Your task to perform on an android device: install app "Google News" Image 0: 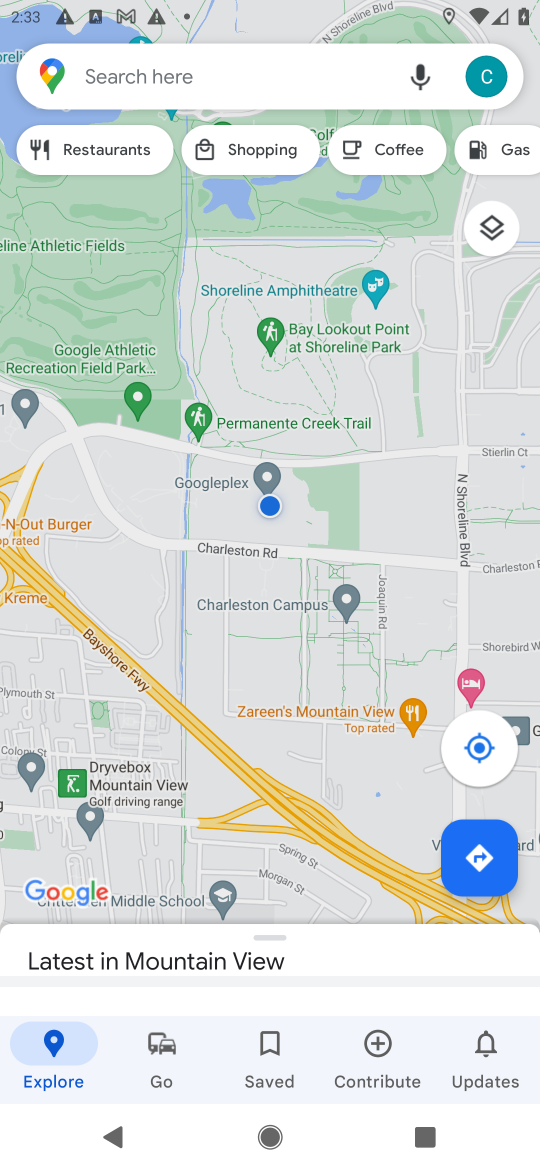
Step 0: press home button
Your task to perform on an android device: install app "Google News" Image 1: 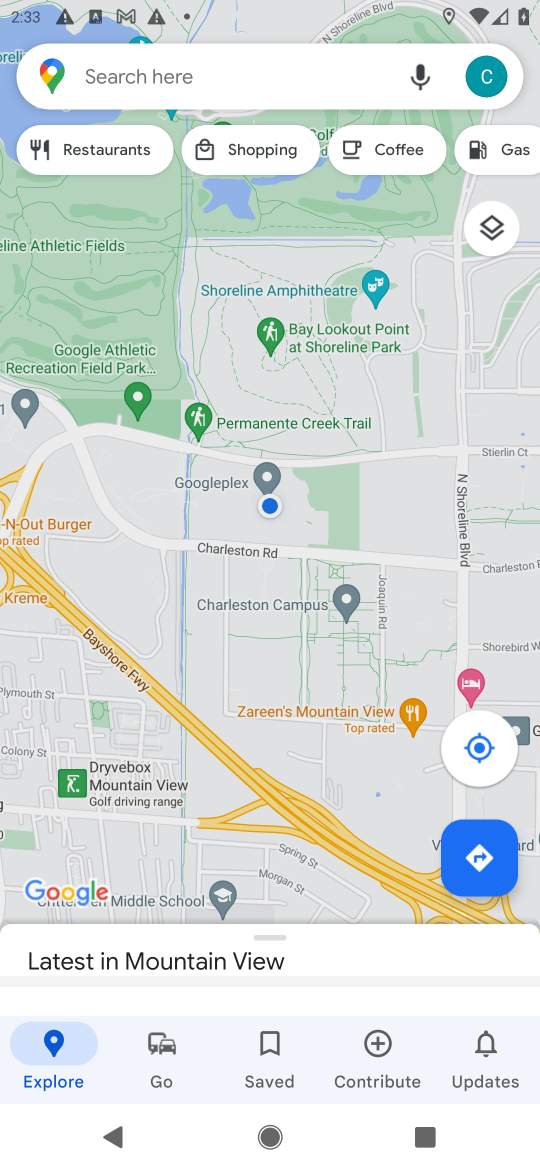
Step 1: press home button
Your task to perform on an android device: install app "Google News" Image 2: 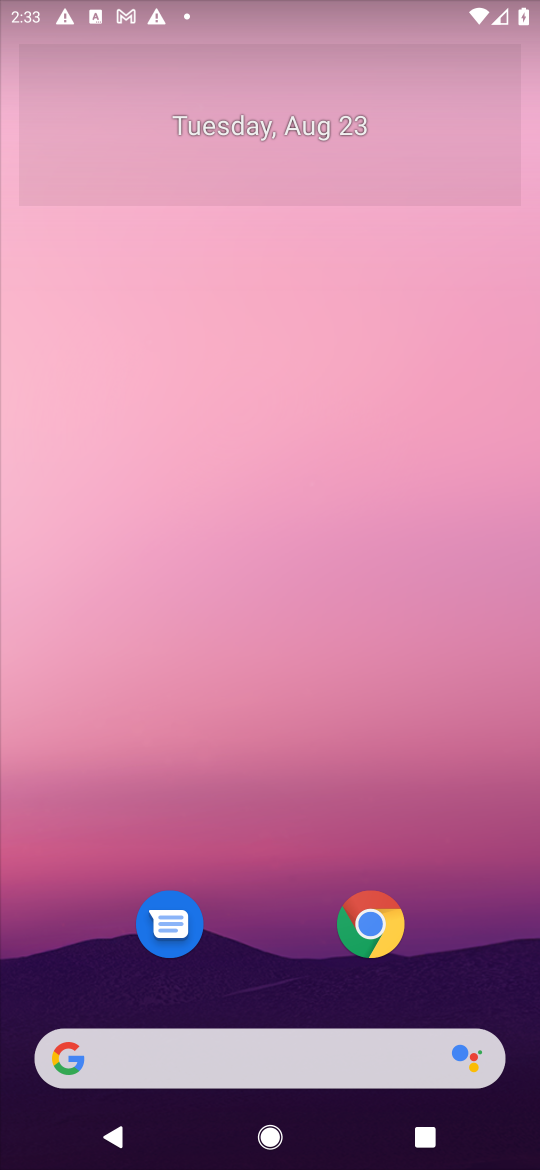
Step 2: press home button
Your task to perform on an android device: install app "Google News" Image 3: 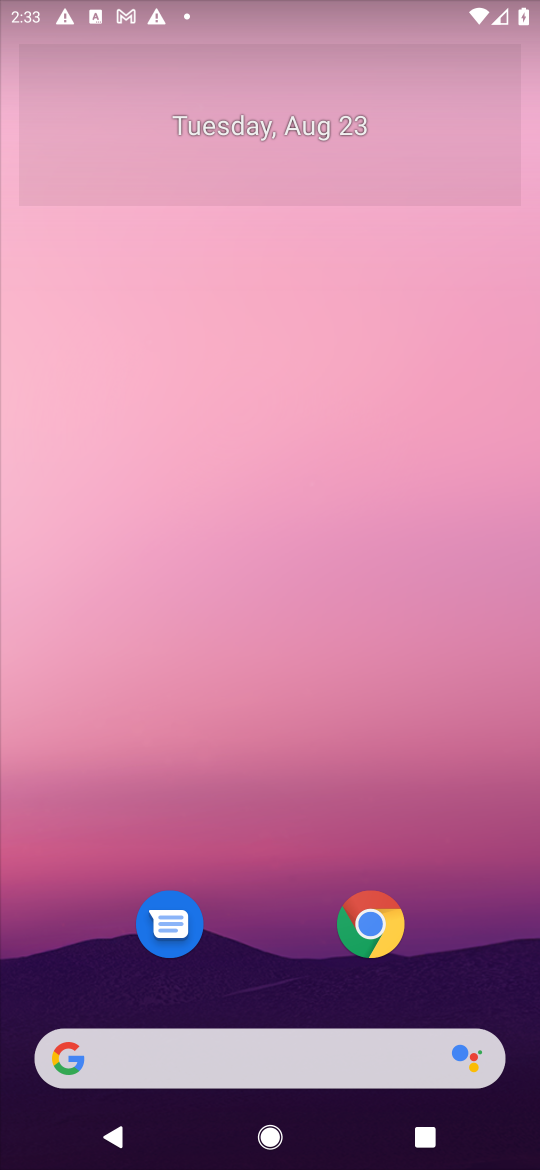
Step 3: drag from (477, 980) to (461, 163)
Your task to perform on an android device: install app "Google News" Image 4: 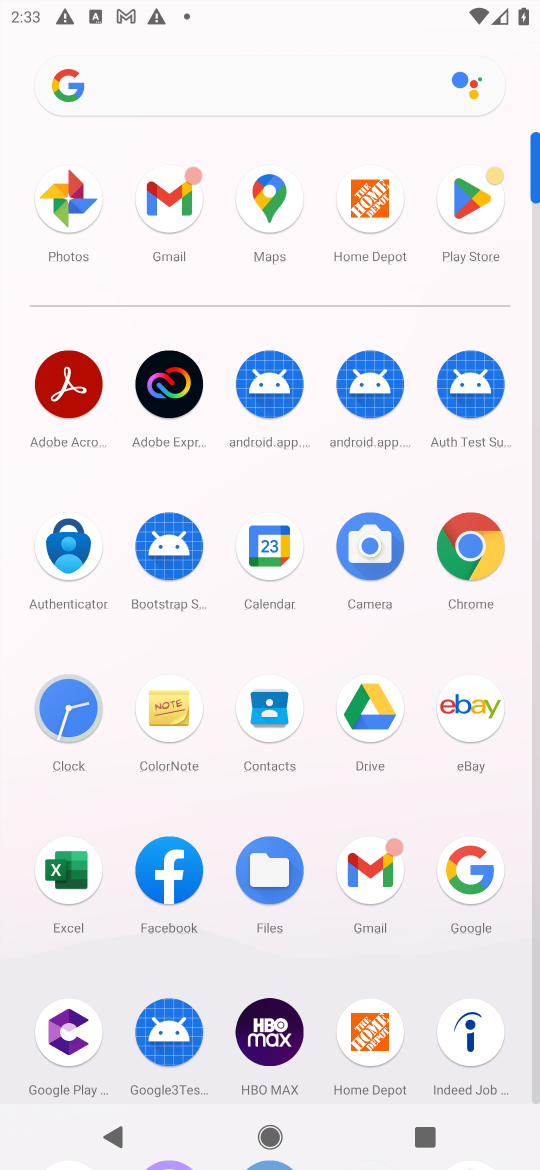
Step 4: click (470, 204)
Your task to perform on an android device: install app "Google News" Image 5: 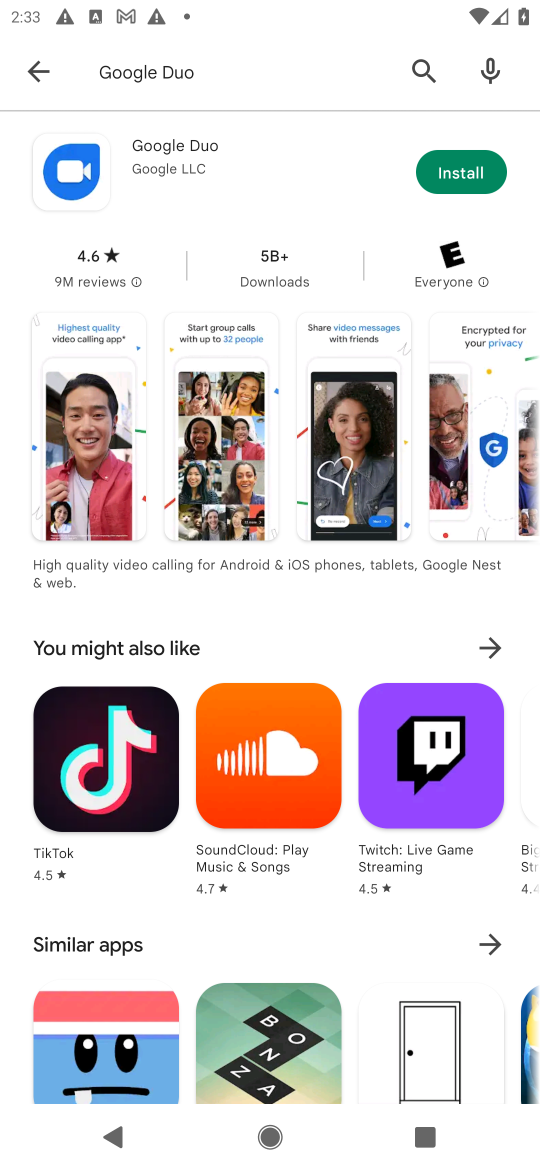
Step 5: press back button
Your task to perform on an android device: install app "Google News" Image 6: 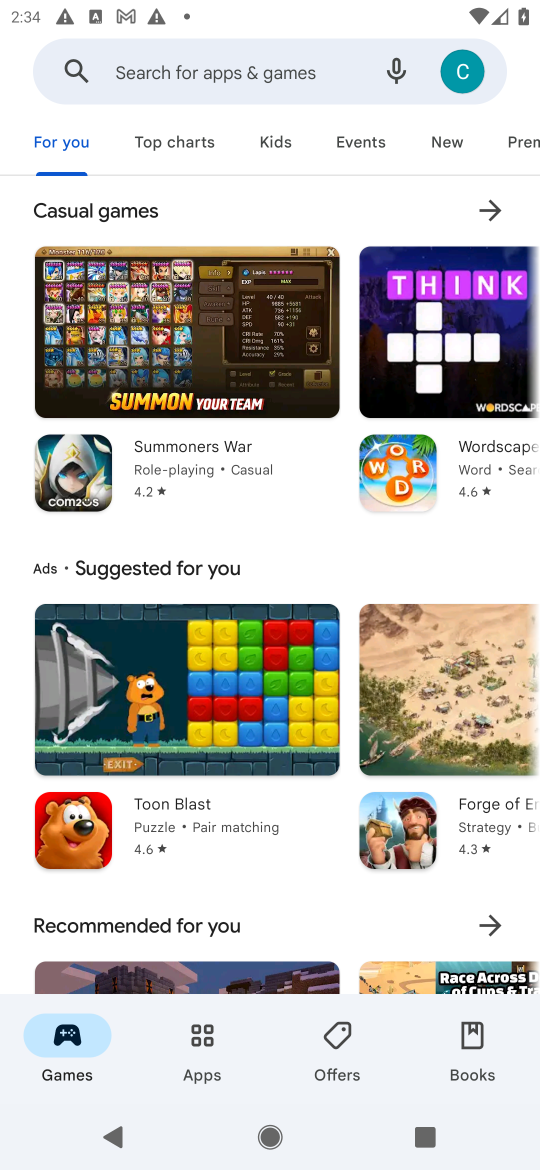
Step 6: click (208, 72)
Your task to perform on an android device: install app "Google News" Image 7: 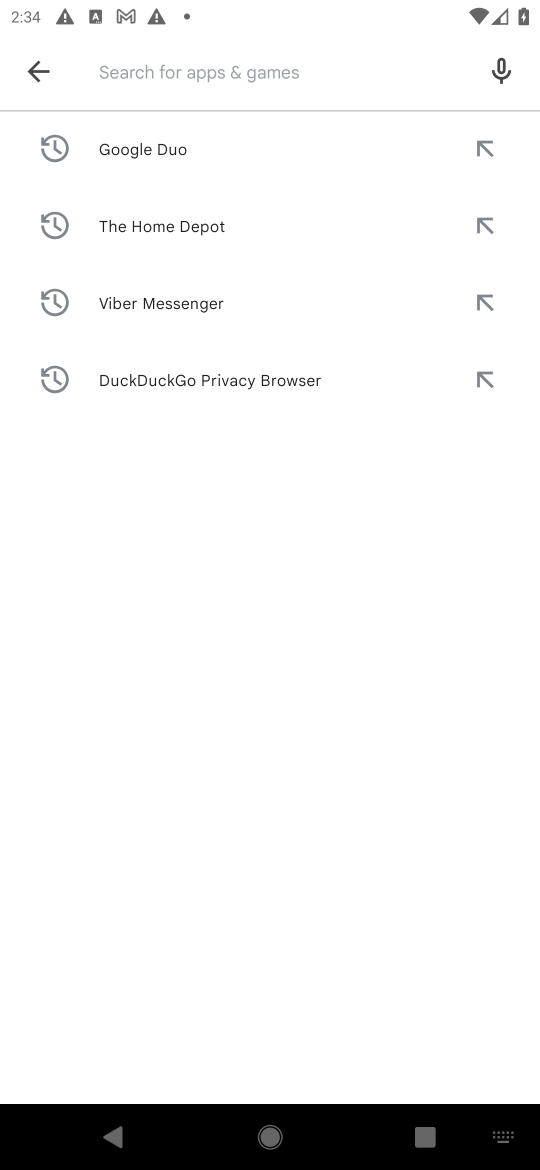
Step 7: press enter
Your task to perform on an android device: install app "Google News" Image 8: 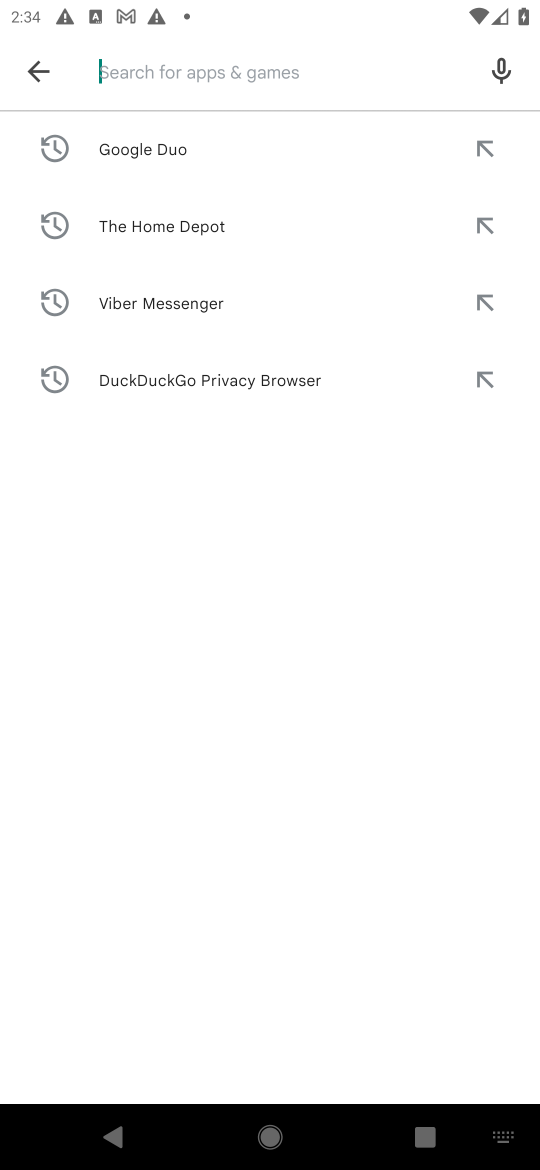
Step 8: type "google news"
Your task to perform on an android device: install app "Google News" Image 9: 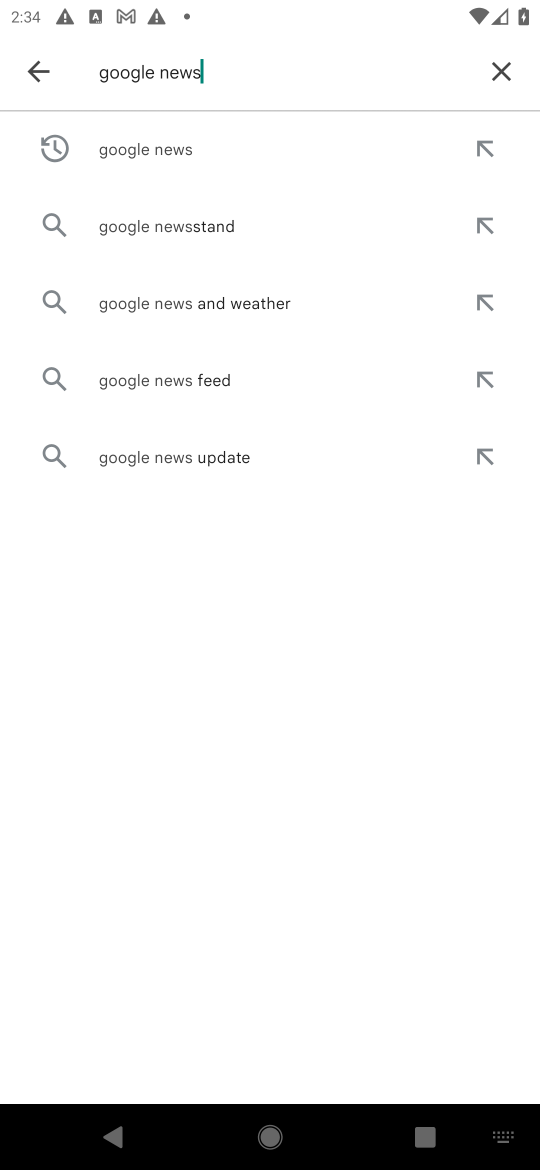
Step 9: click (159, 149)
Your task to perform on an android device: install app "Google News" Image 10: 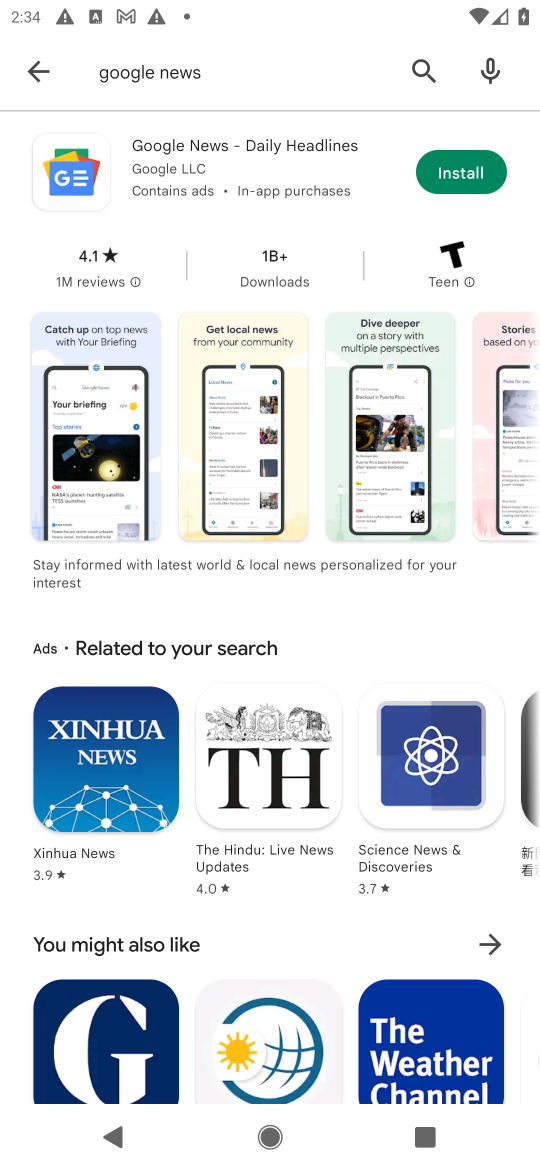
Step 10: click (454, 170)
Your task to perform on an android device: install app "Google News" Image 11: 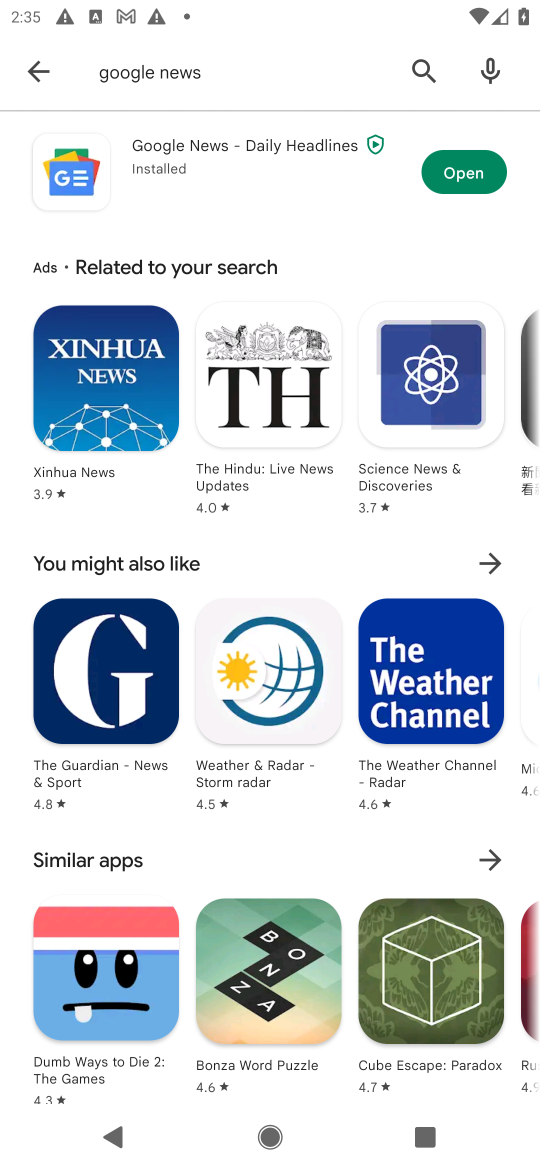
Step 11: task complete